Your task to perform on an android device: remove spam from my inbox in the gmail app Image 0: 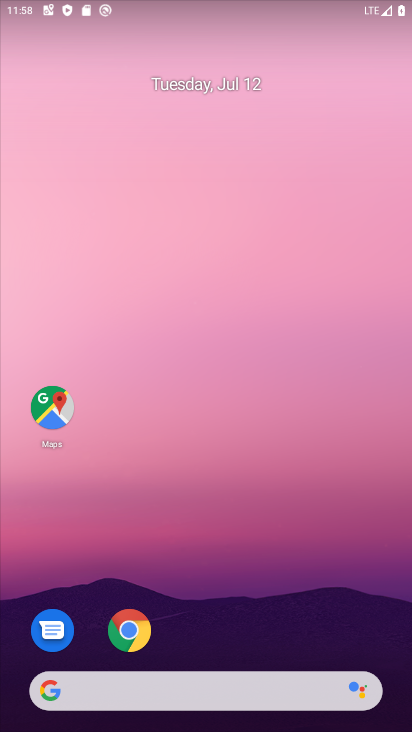
Step 0: drag from (368, 600) to (222, 128)
Your task to perform on an android device: remove spam from my inbox in the gmail app Image 1: 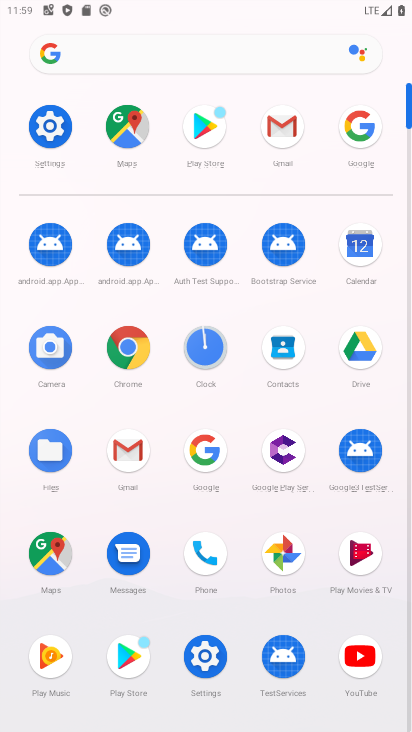
Step 1: click (121, 449)
Your task to perform on an android device: remove spam from my inbox in the gmail app Image 2: 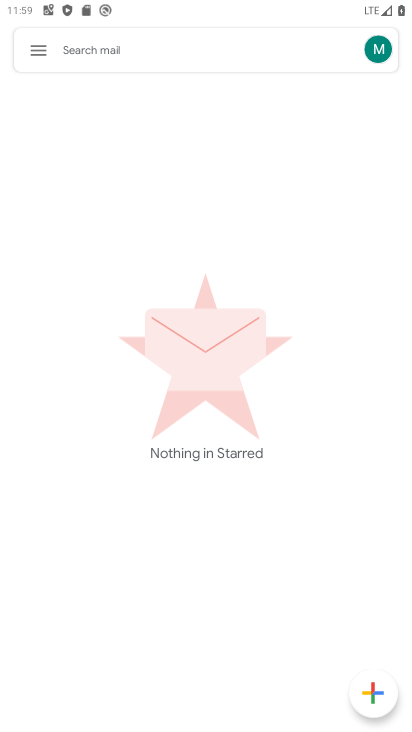
Step 2: task complete